Your task to perform on an android device: Go to calendar. Show me events next week Image 0: 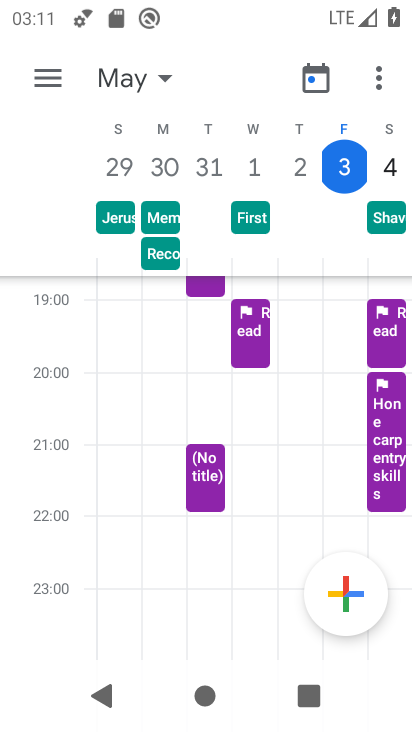
Step 0: click (155, 84)
Your task to perform on an android device: Go to calendar. Show me events next week Image 1: 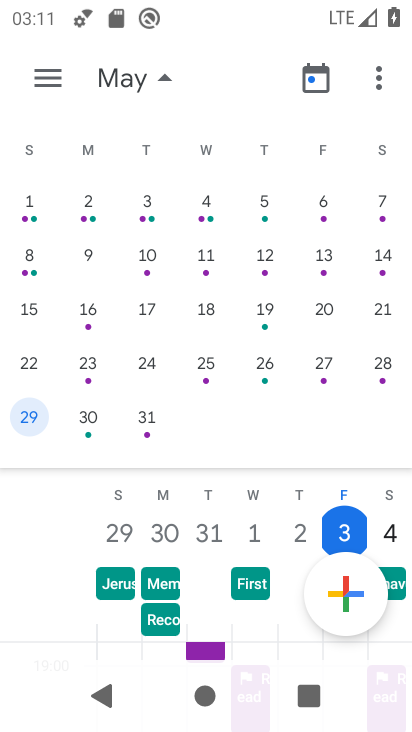
Step 1: drag from (374, 301) to (37, 168)
Your task to perform on an android device: Go to calendar. Show me events next week Image 2: 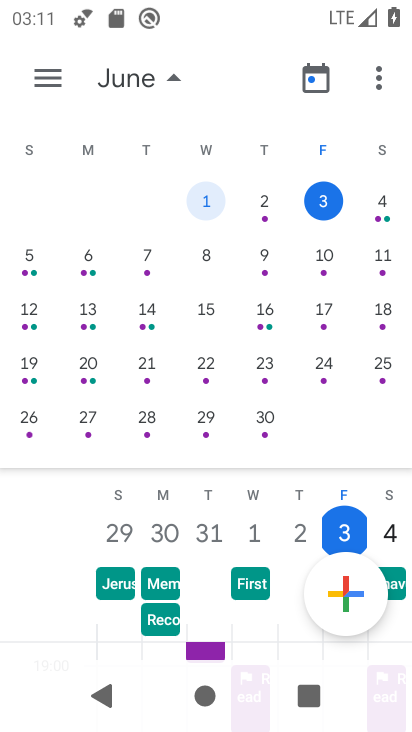
Step 2: click (26, 258)
Your task to perform on an android device: Go to calendar. Show me events next week Image 3: 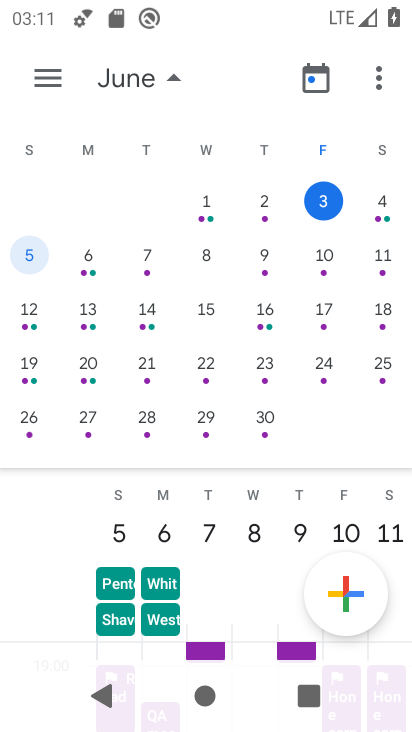
Step 3: task complete